Your task to perform on an android device: toggle sleep mode Image 0: 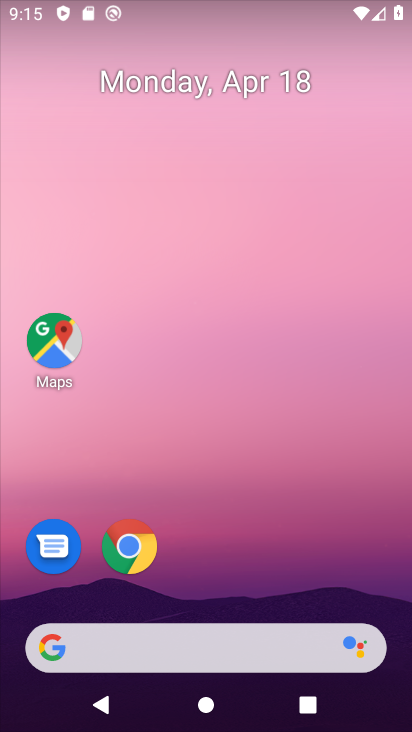
Step 0: drag from (301, 540) to (270, 46)
Your task to perform on an android device: toggle sleep mode Image 1: 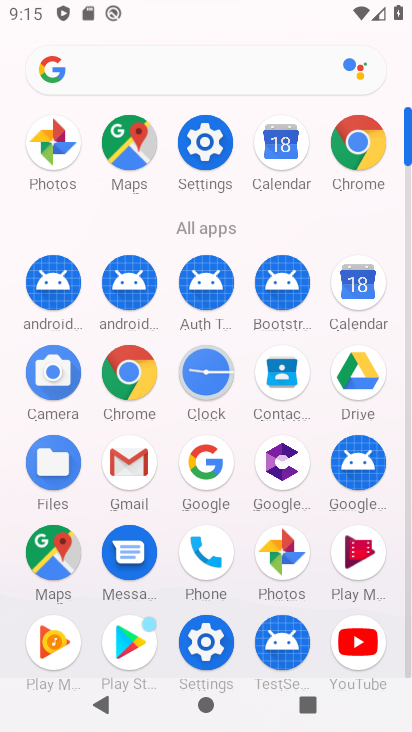
Step 1: click (216, 165)
Your task to perform on an android device: toggle sleep mode Image 2: 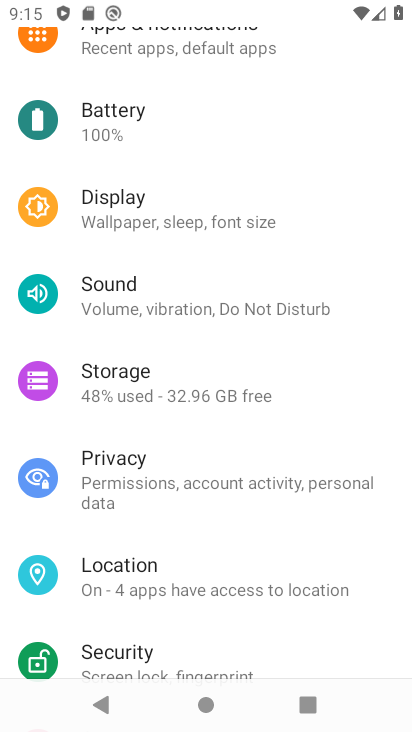
Step 2: click (196, 209)
Your task to perform on an android device: toggle sleep mode Image 3: 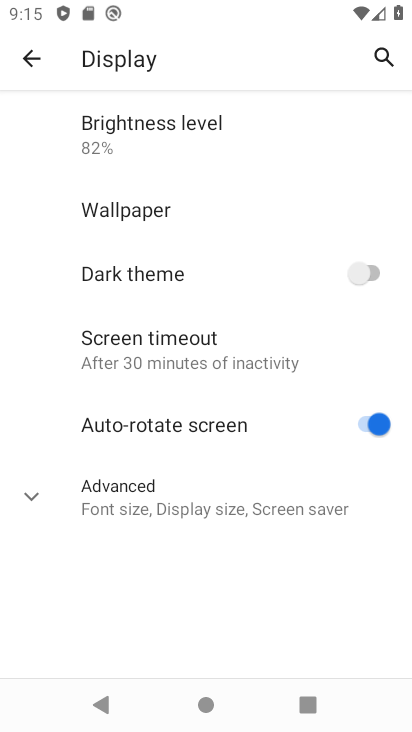
Step 3: click (218, 356)
Your task to perform on an android device: toggle sleep mode Image 4: 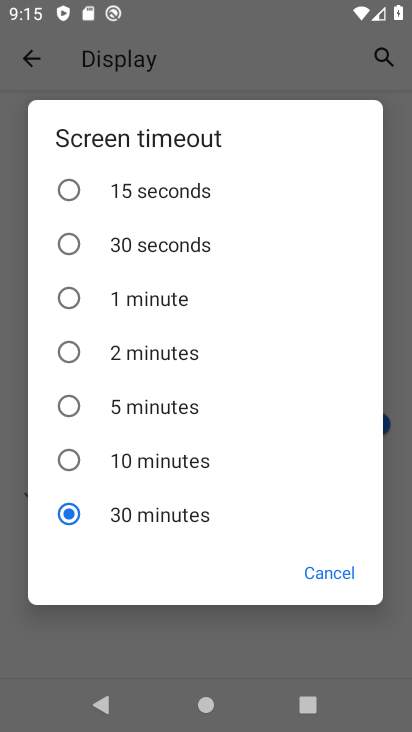
Step 4: drag from (224, 265) to (221, 177)
Your task to perform on an android device: toggle sleep mode Image 5: 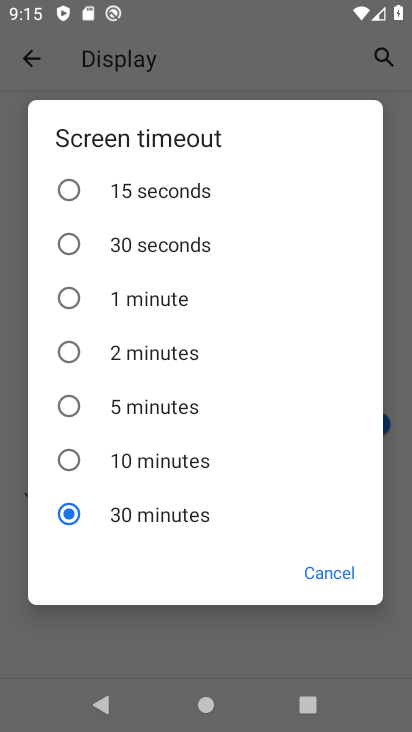
Step 5: click (345, 578)
Your task to perform on an android device: toggle sleep mode Image 6: 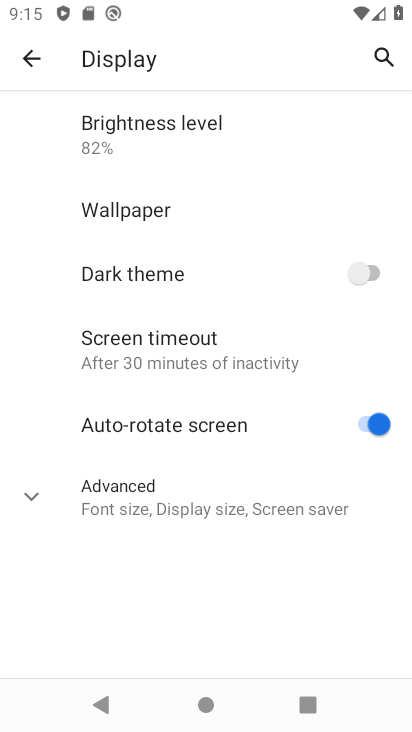
Step 6: task complete